Your task to perform on an android device: open the mobile data screen to see how much data has been used Image 0: 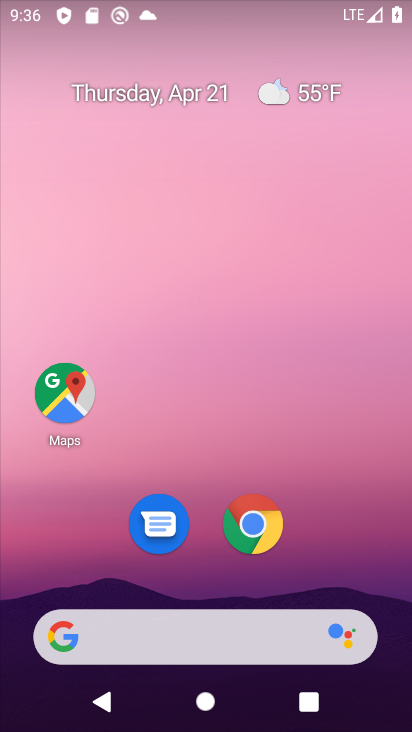
Step 0: drag from (344, 547) to (322, 103)
Your task to perform on an android device: open the mobile data screen to see how much data has been used Image 1: 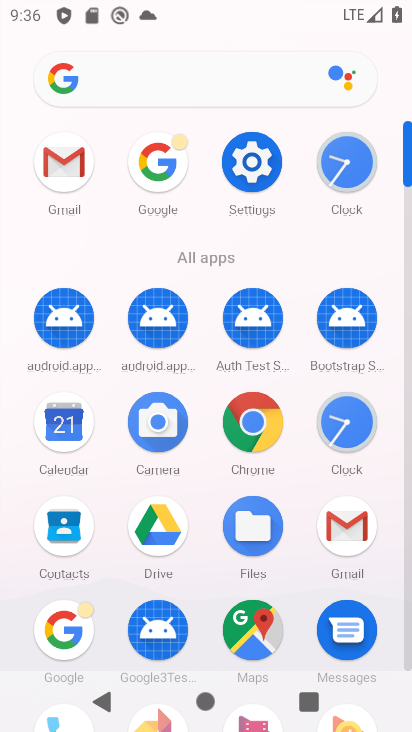
Step 1: click (252, 159)
Your task to perform on an android device: open the mobile data screen to see how much data has been used Image 2: 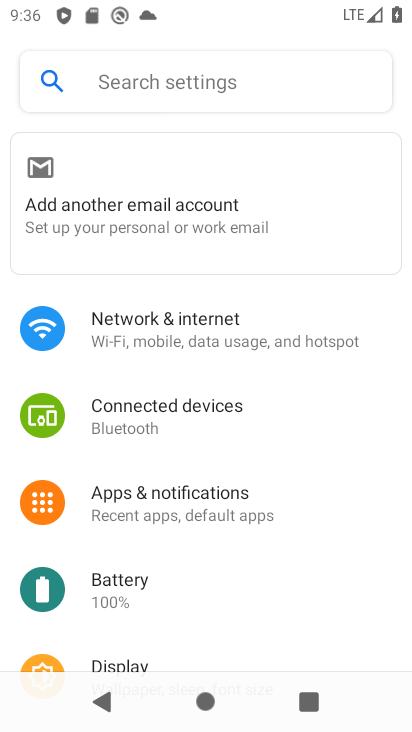
Step 2: click (237, 333)
Your task to perform on an android device: open the mobile data screen to see how much data has been used Image 3: 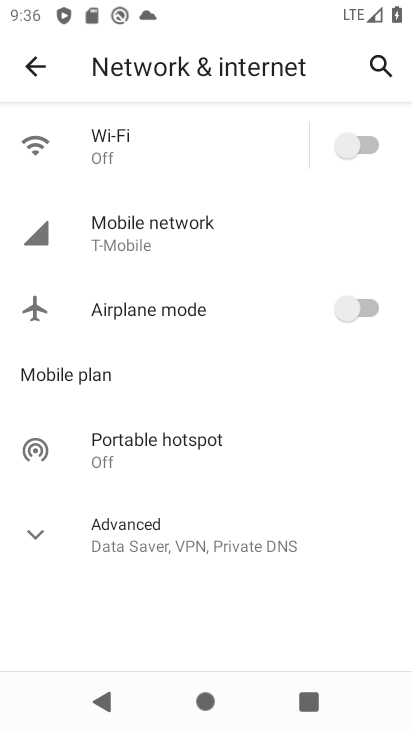
Step 3: click (257, 225)
Your task to perform on an android device: open the mobile data screen to see how much data has been used Image 4: 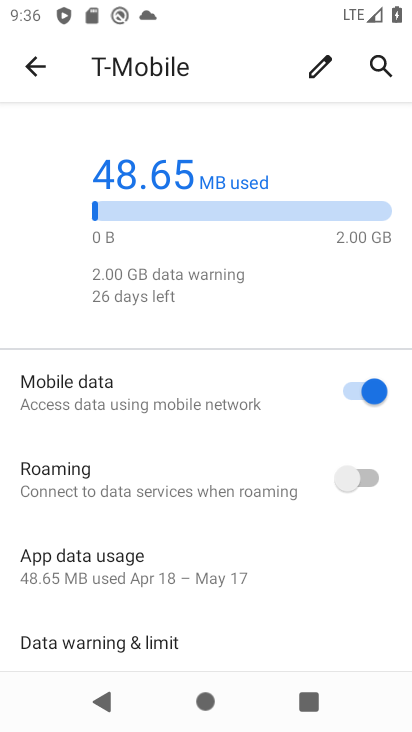
Step 4: task complete